Your task to perform on an android device: Open maps Image 0: 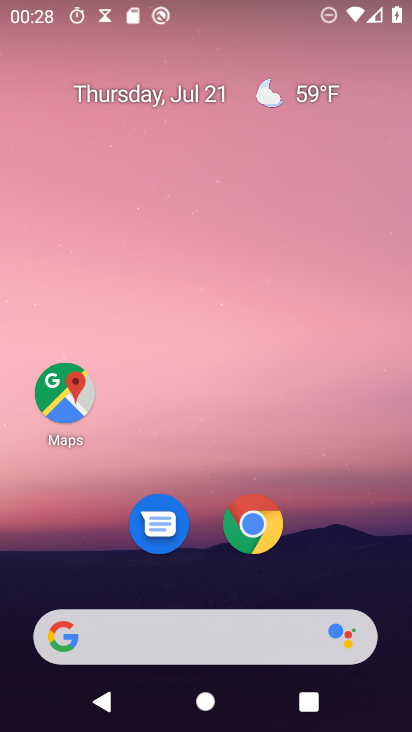
Step 0: click (73, 385)
Your task to perform on an android device: Open maps Image 1: 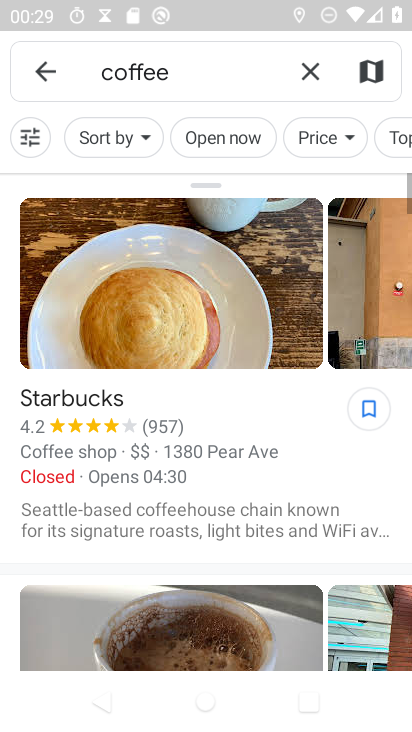
Step 1: click (52, 75)
Your task to perform on an android device: Open maps Image 2: 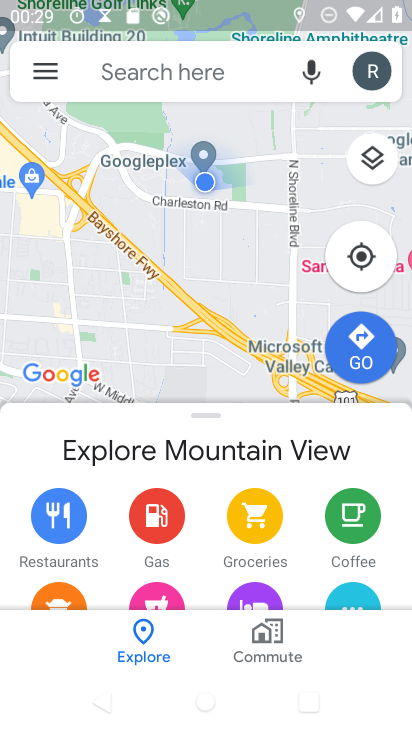
Step 2: task complete